Your task to perform on an android device: change the upload size in google photos Image 0: 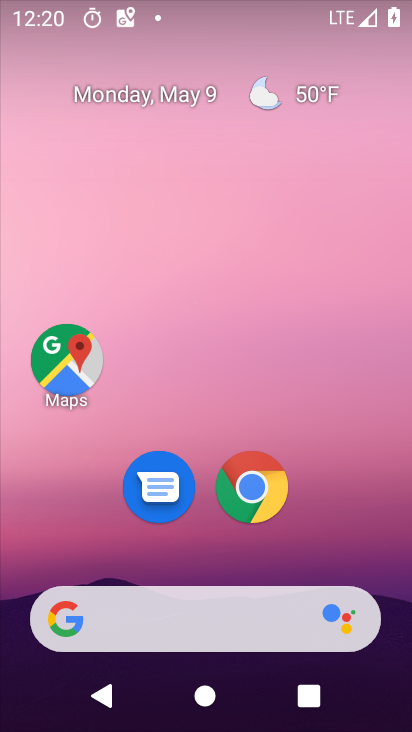
Step 0: drag from (338, 509) to (369, 172)
Your task to perform on an android device: change the upload size in google photos Image 1: 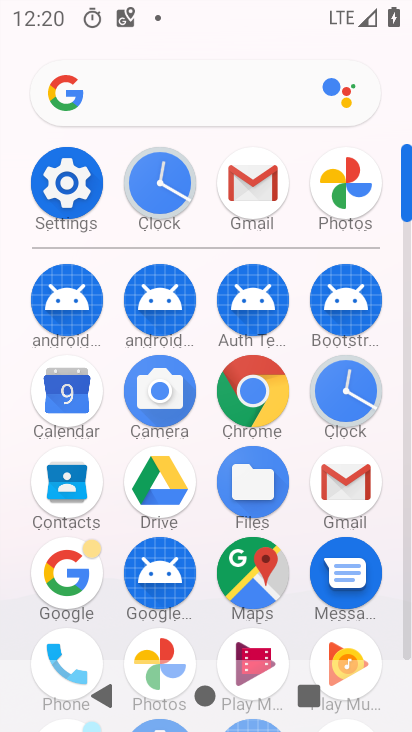
Step 1: click (368, 202)
Your task to perform on an android device: change the upload size in google photos Image 2: 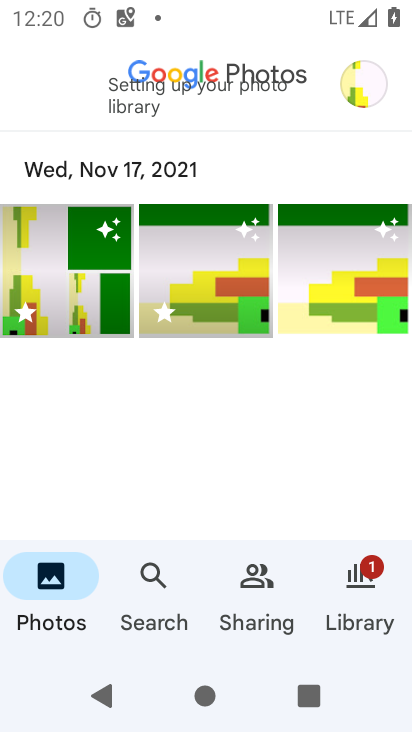
Step 2: click (350, 86)
Your task to perform on an android device: change the upload size in google photos Image 3: 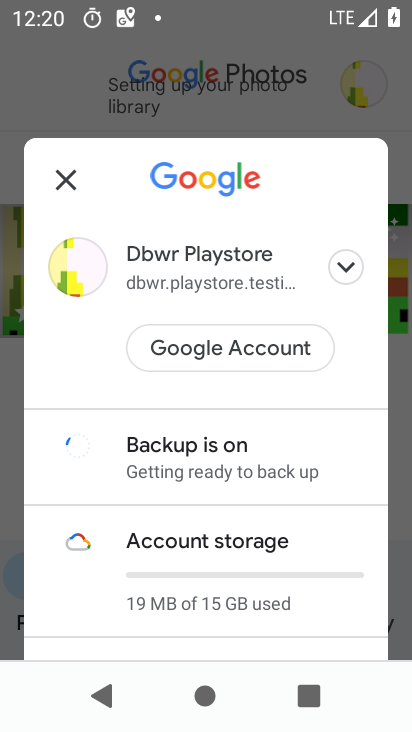
Step 3: click (240, 465)
Your task to perform on an android device: change the upload size in google photos Image 4: 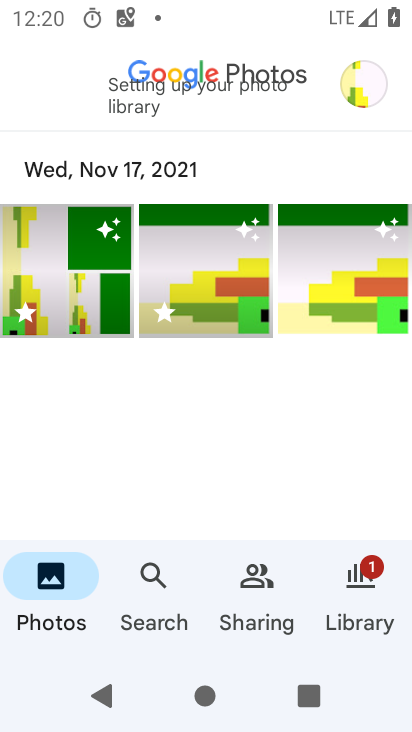
Step 4: click (367, 92)
Your task to perform on an android device: change the upload size in google photos Image 5: 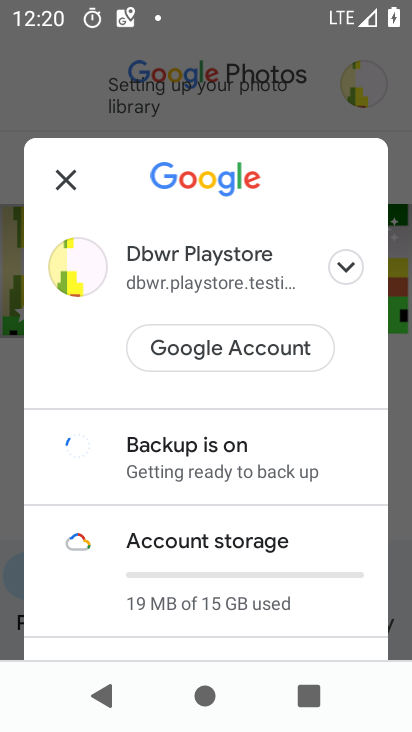
Step 5: click (260, 458)
Your task to perform on an android device: change the upload size in google photos Image 6: 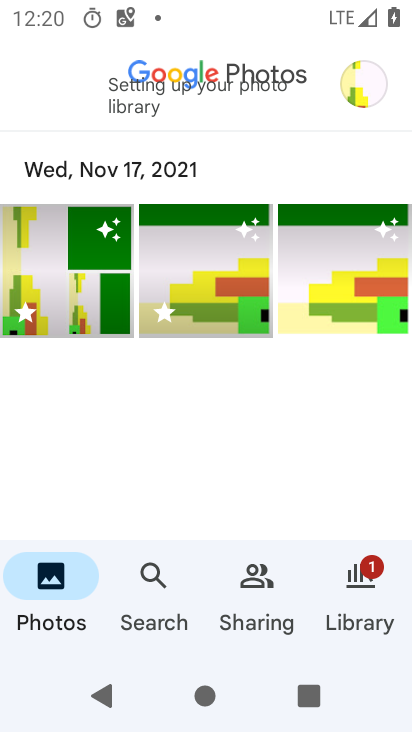
Step 6: click (369, 79)
Your task to perform on an android device: change the upload size in google photos Image 7: 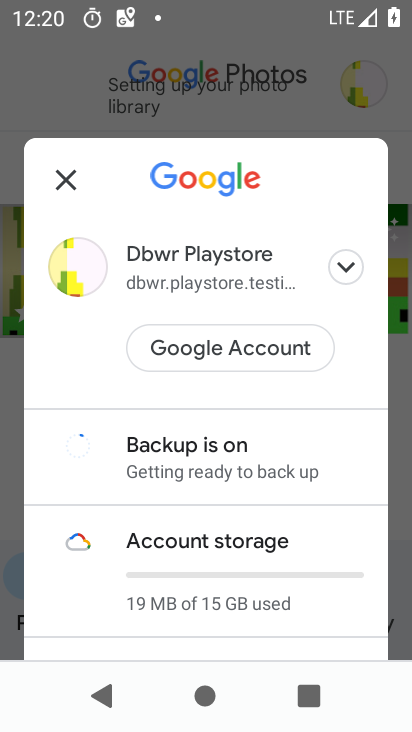
Step 7: drag from (277, 554) to (341, 299)
Your task to perform on an android device: change the upload size in google photos Image 8: 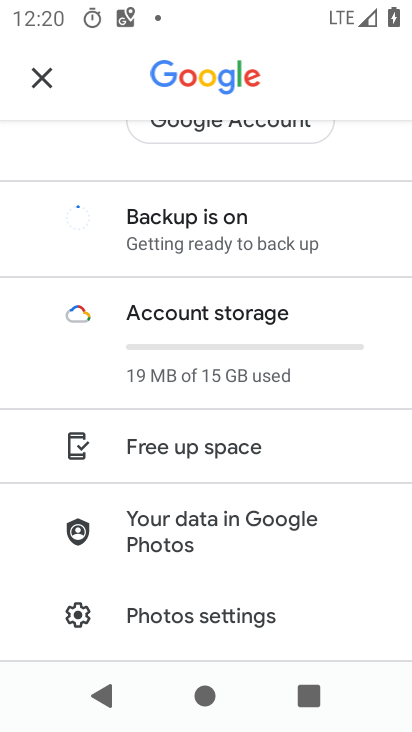
Step 8: click (248, 615)
Your task to perform on an android device: change the upload size in google photos Image 9: 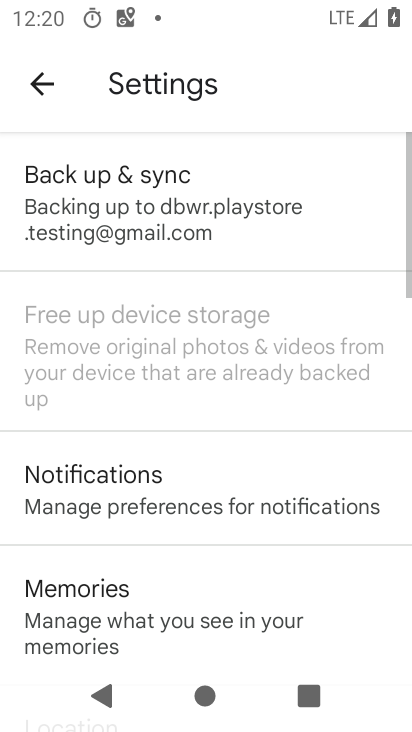
Step 9: click (199, 229)
Your task to perform on an android device: change the upload size in google photos Image 10: 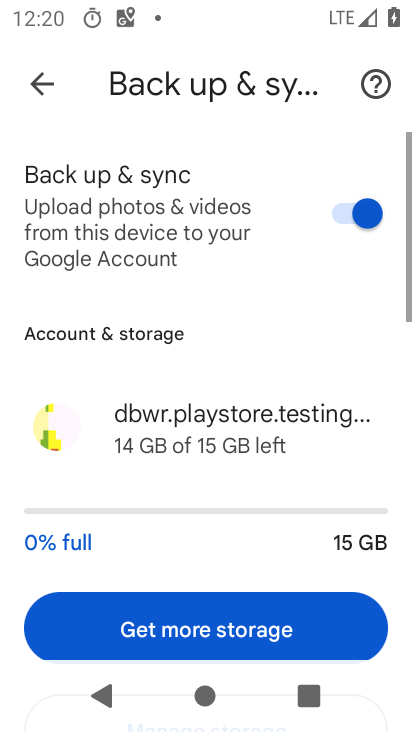
Step 10: drag from (244, 537) to (250, 159)
Your task to perform on an android device: change the upload size in google photos Image 11: 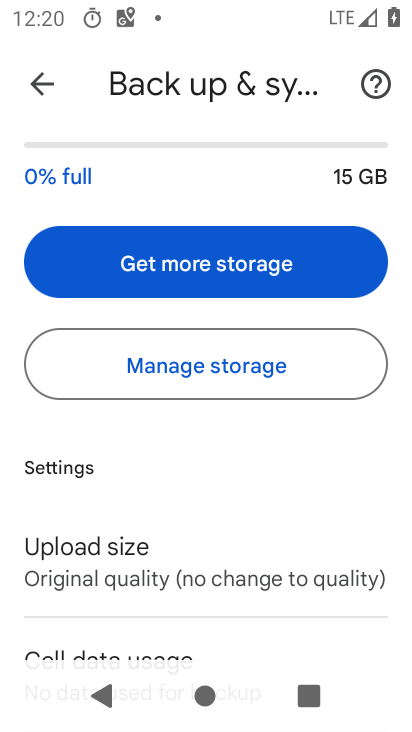
Step 11: drag from (145, 516) to (186, 400)
Your task to perform on an android device: change the upload size in google photos Image 12: 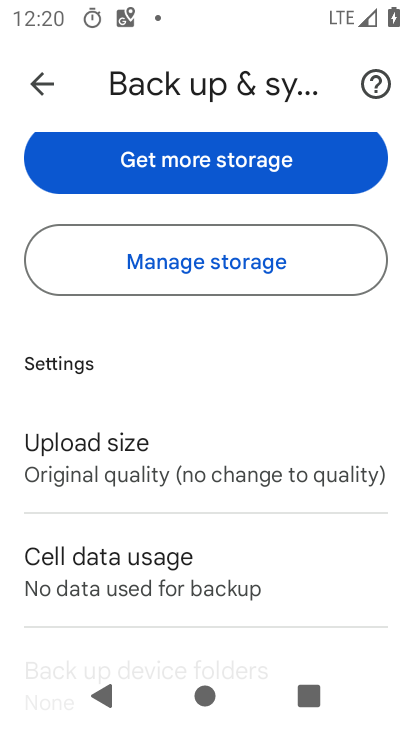
Step 12: click (167, 466)
Your task to perform on an android device: change the upload size in google photos Image 13: 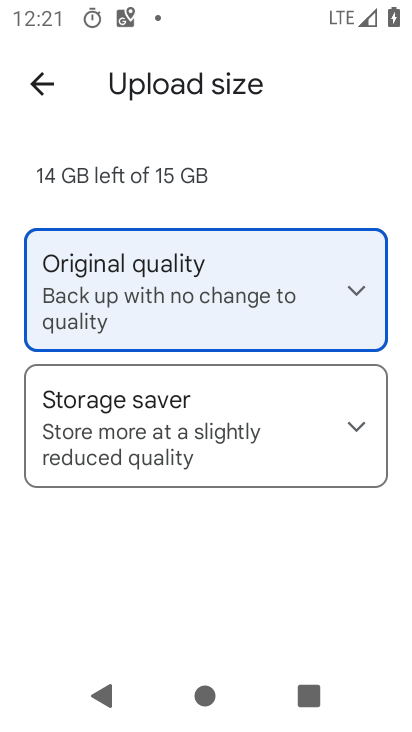
Step 13: click (169, 461)
Your task to perform on an android device: change the upload size in google photos Image 14: 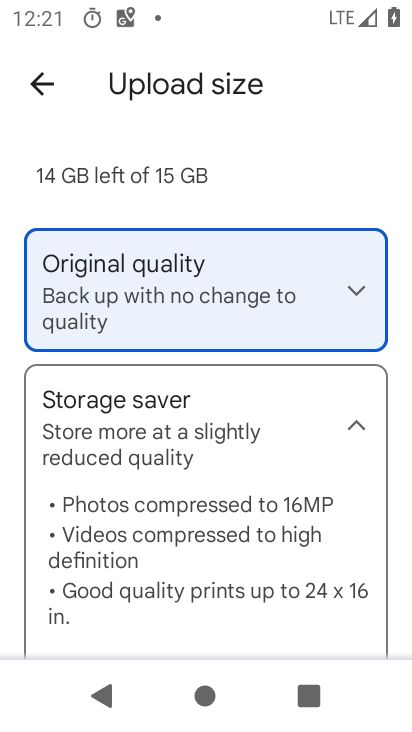
Step 14: click (175, 436)
Your task to perform on an android device: change the upload size in google photos Image 15: 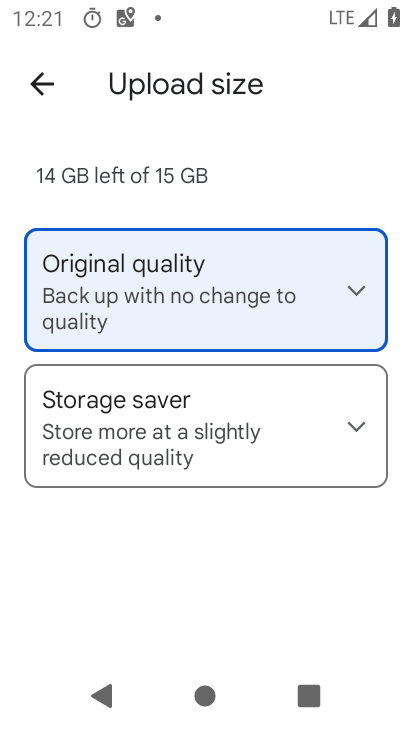
Step 15: drag from (175, 436) to (200, 324)
Your task to perform on an android device: change the upload size in google photos Image 16: 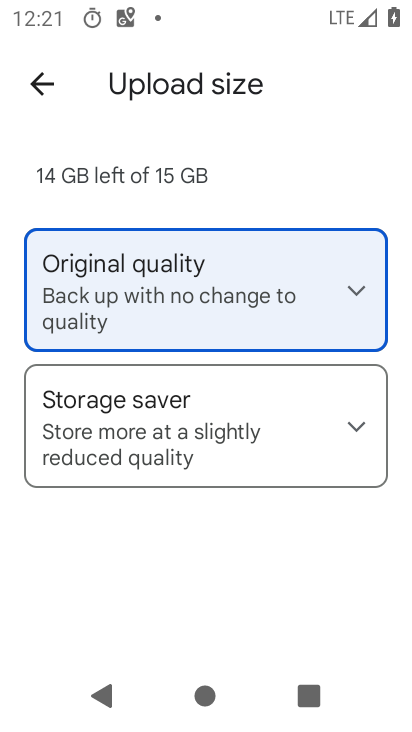
Step 16: click (329, 445)
Your task to perform on an android device: change the upload size in google photos Image 17: 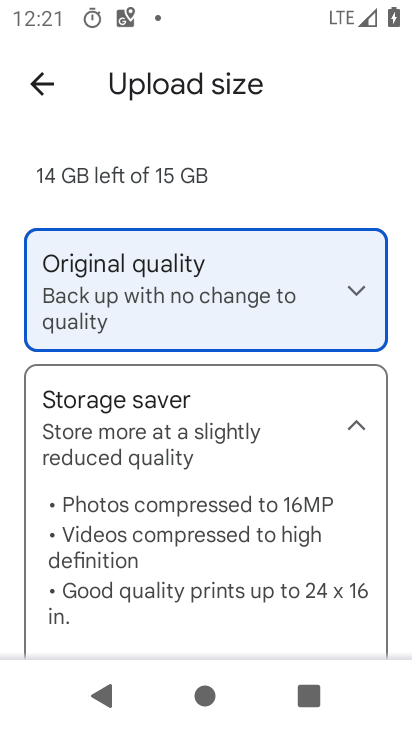
Step 17: drag from (271, 591) to (288, 281)
Your task to perform on an android device: change the upload size in google photos Image 18: 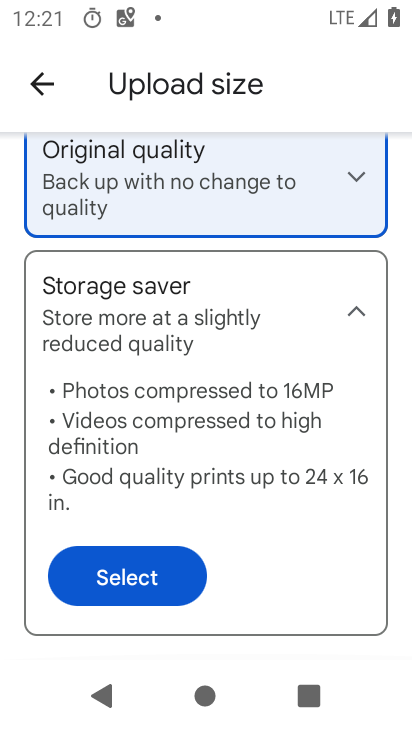
Step 18: click (148, 576)
Your task to perform on an android device: change the upload size in google photos Image 19: 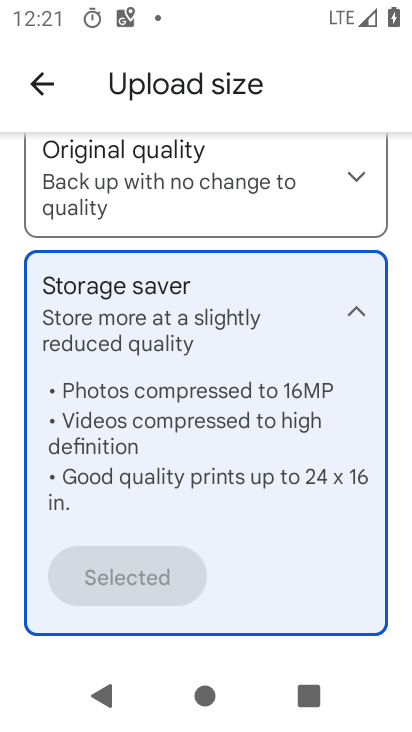
Step 19: task complete